Your task to perform on an android device: Add usb-a to the cart on newegg, then select checkout. Image 0: 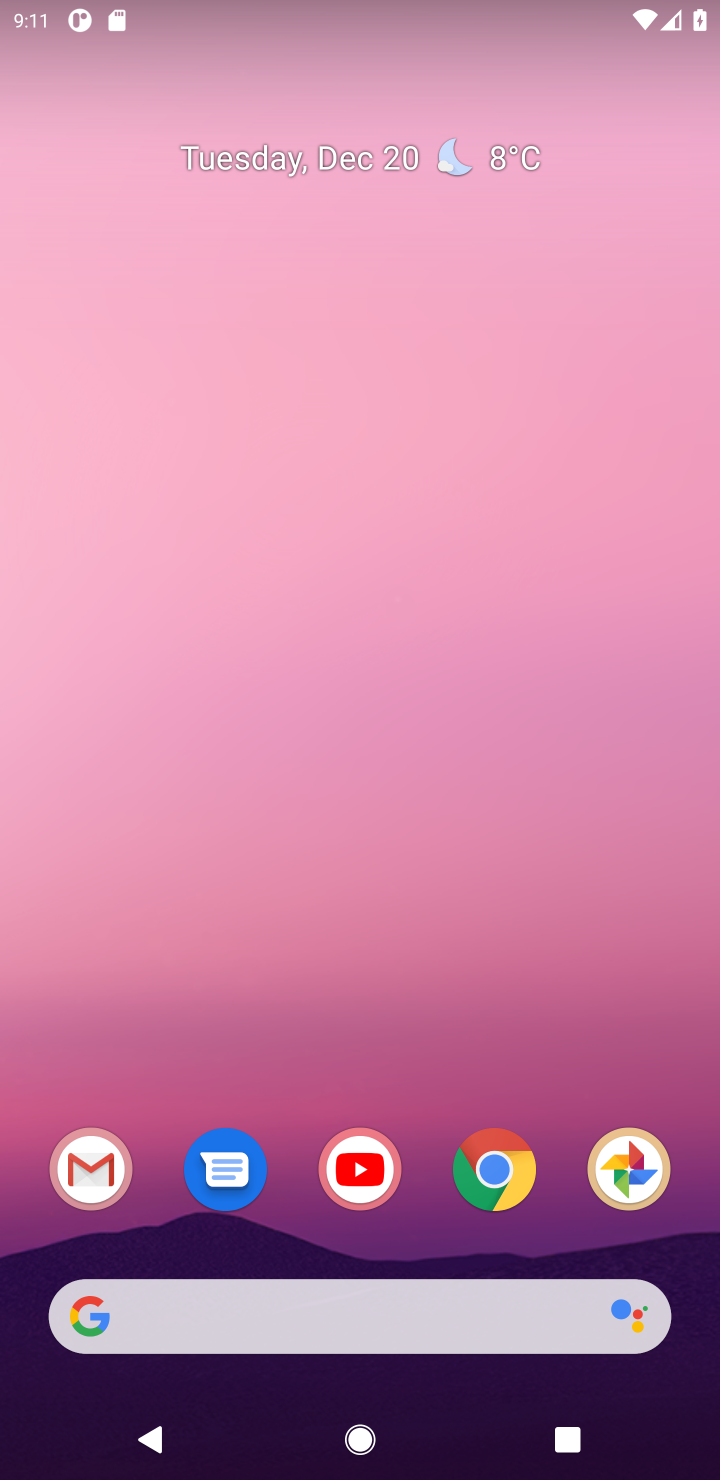
Step 0: click (456, 1153)
Your task to perform on an android device: Add usb-a to the cart on newegg, then select checkout. Image 1: 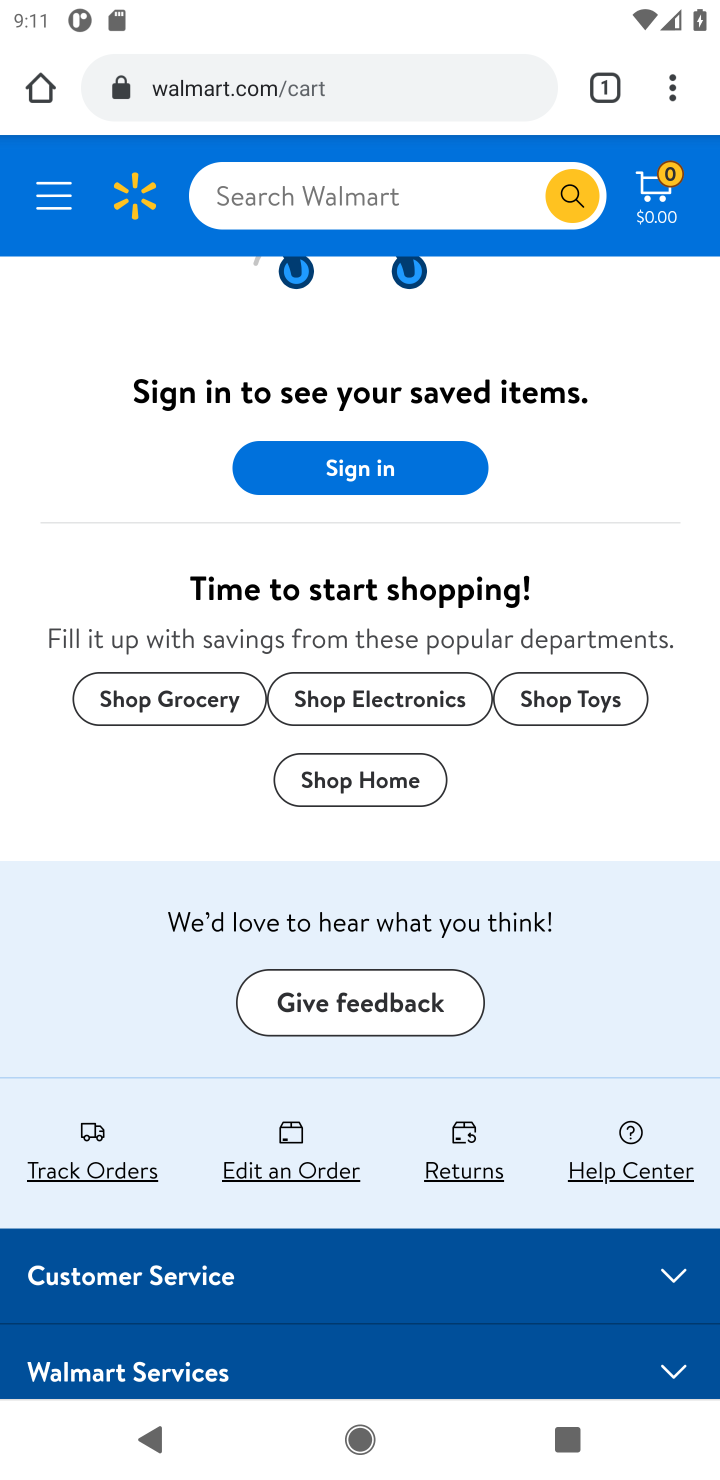
Step 1: click (304, 94)
Your task to perform on an android device: Add usb-a to the cart on newegg, then select checkout. Image 2: 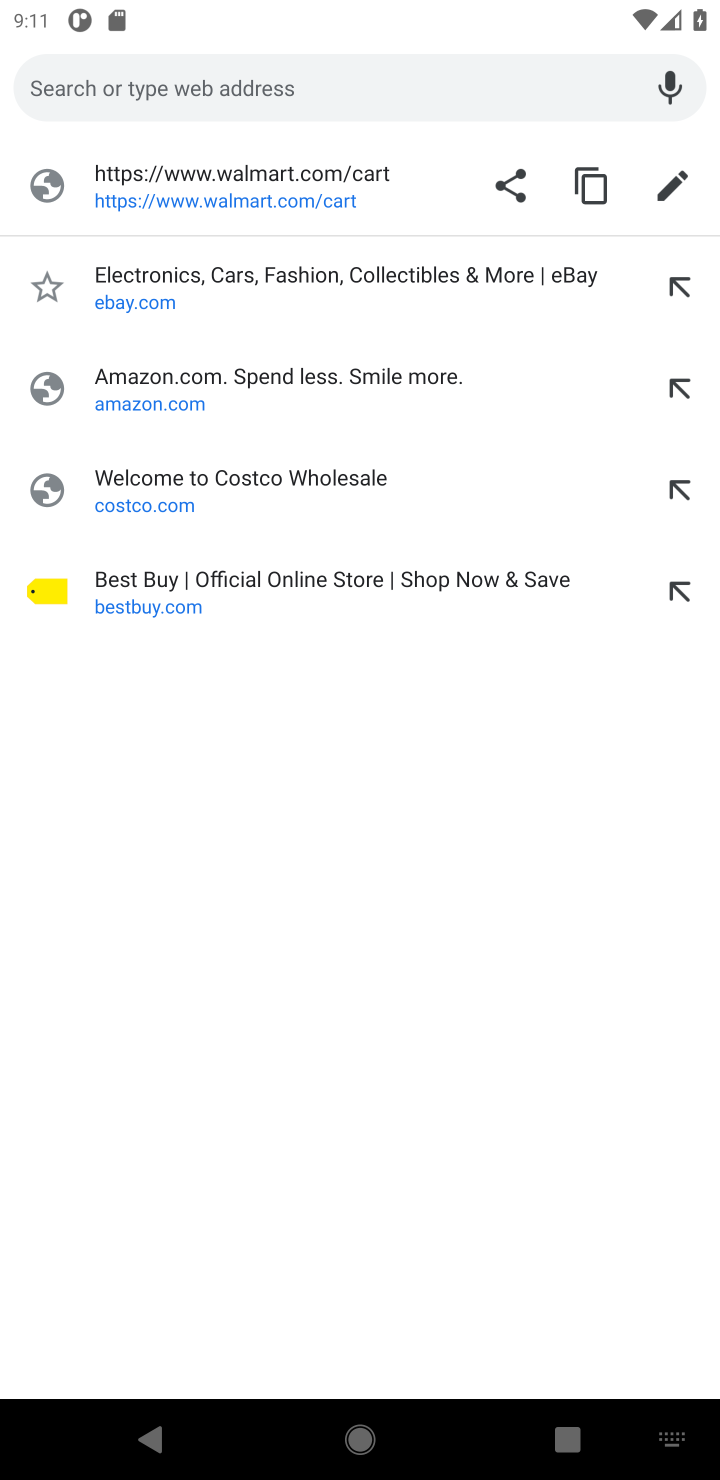
Step 2: type "newegg"
Your task to perform on an android device: Add usb-a to the cart on newegg, then select checkout. Image 3: 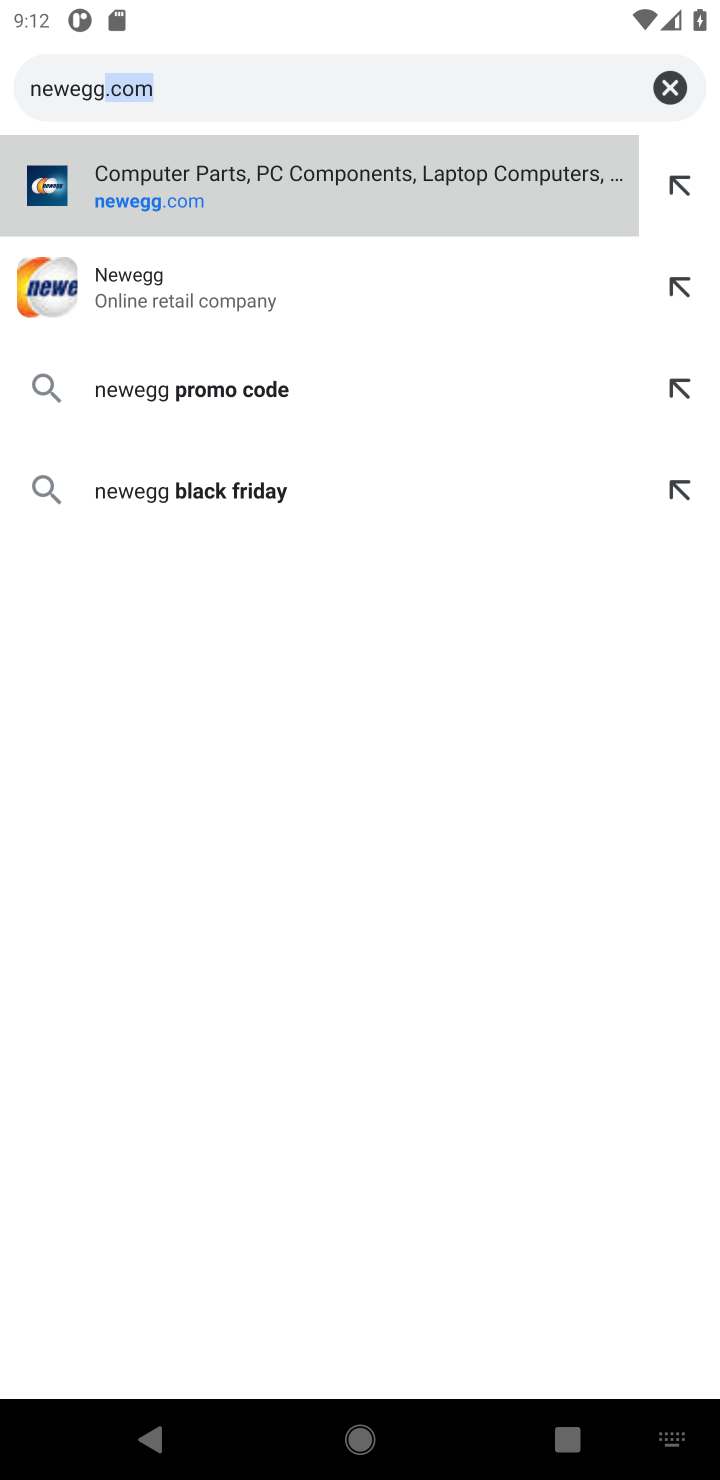
Step 3: click (254, 185)
Your task to perform on an android device: Add usb-a to the cart on newegg, then select checkout. Image 4: 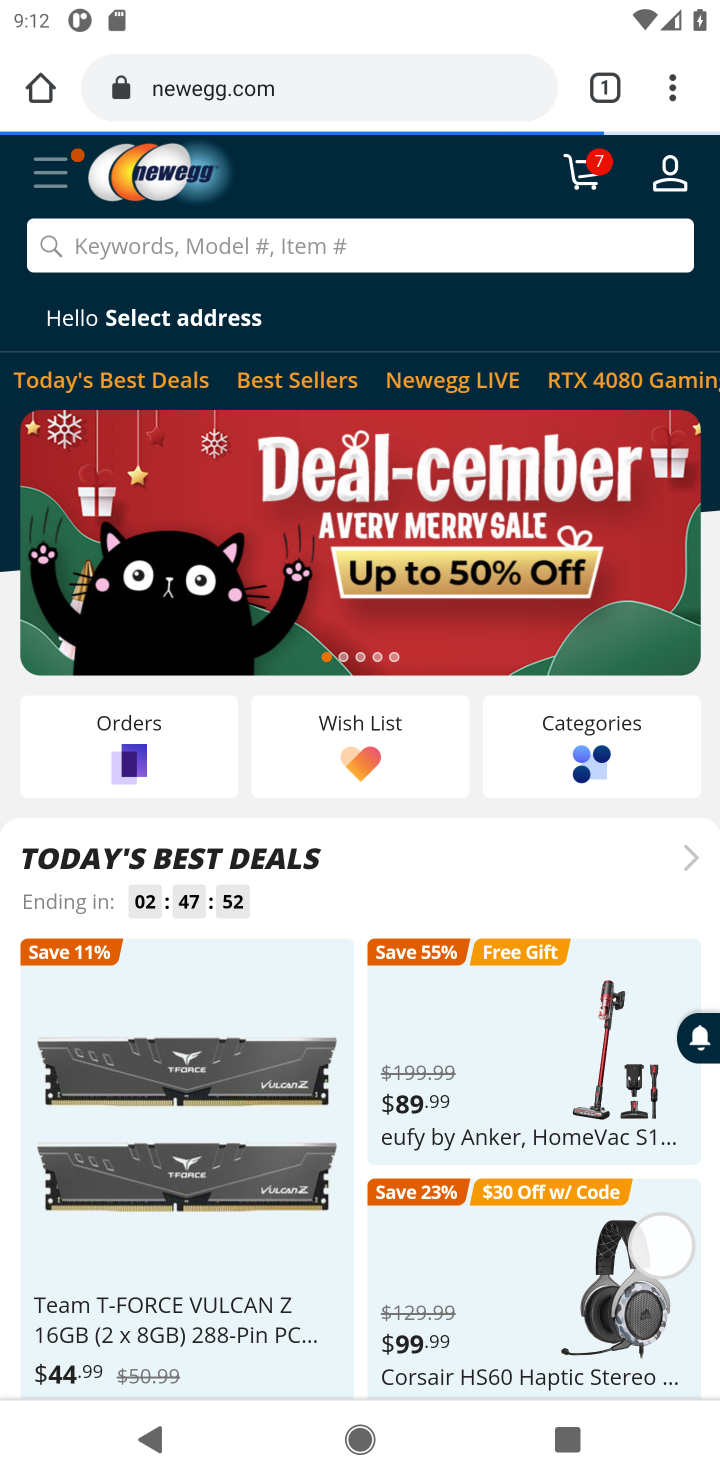
Step 4: click (331, 250)
Your task to perform on an android device: Add usb-a to the cart on newegg, then select checkout. Image 5: 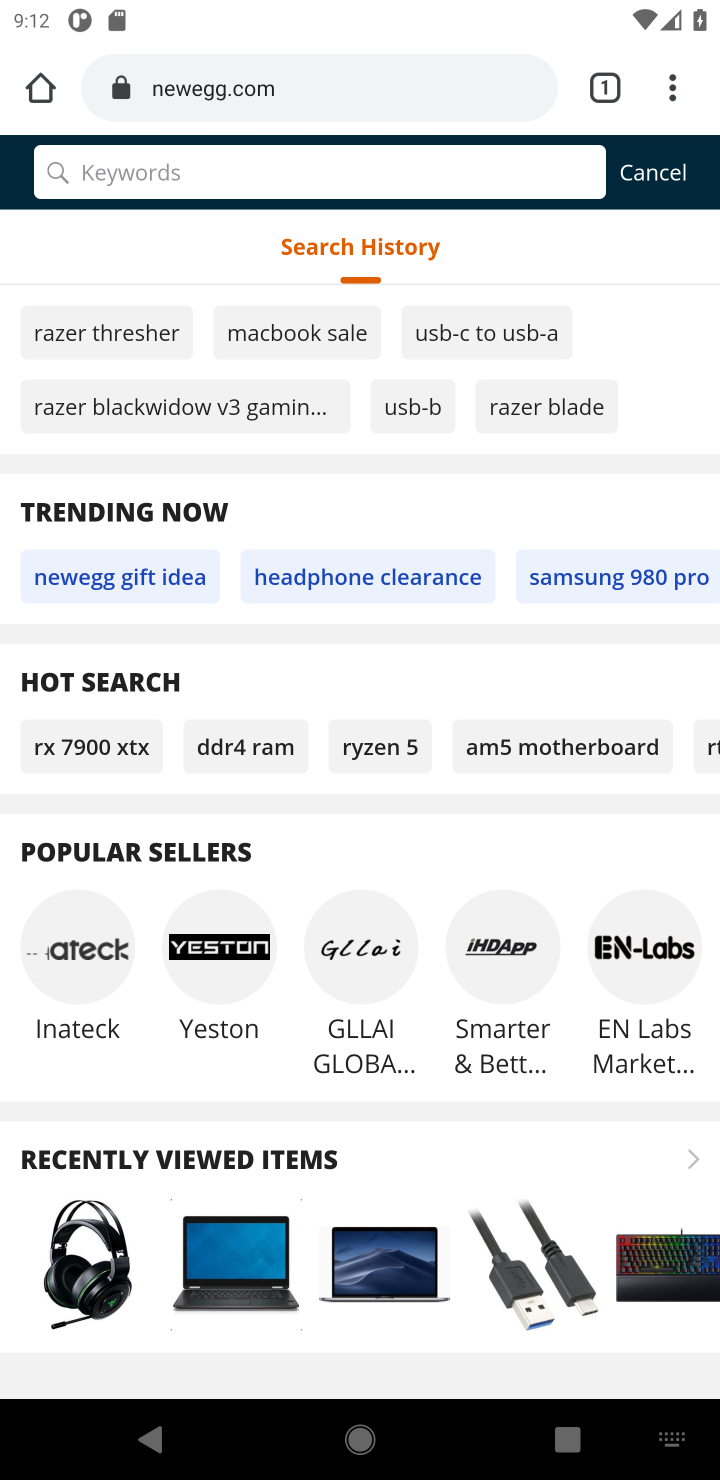
Step 5: type "usb-a"
Your task to perform on an android device: Add usb-a to the cart on newegg, then select checkout. Image 6: 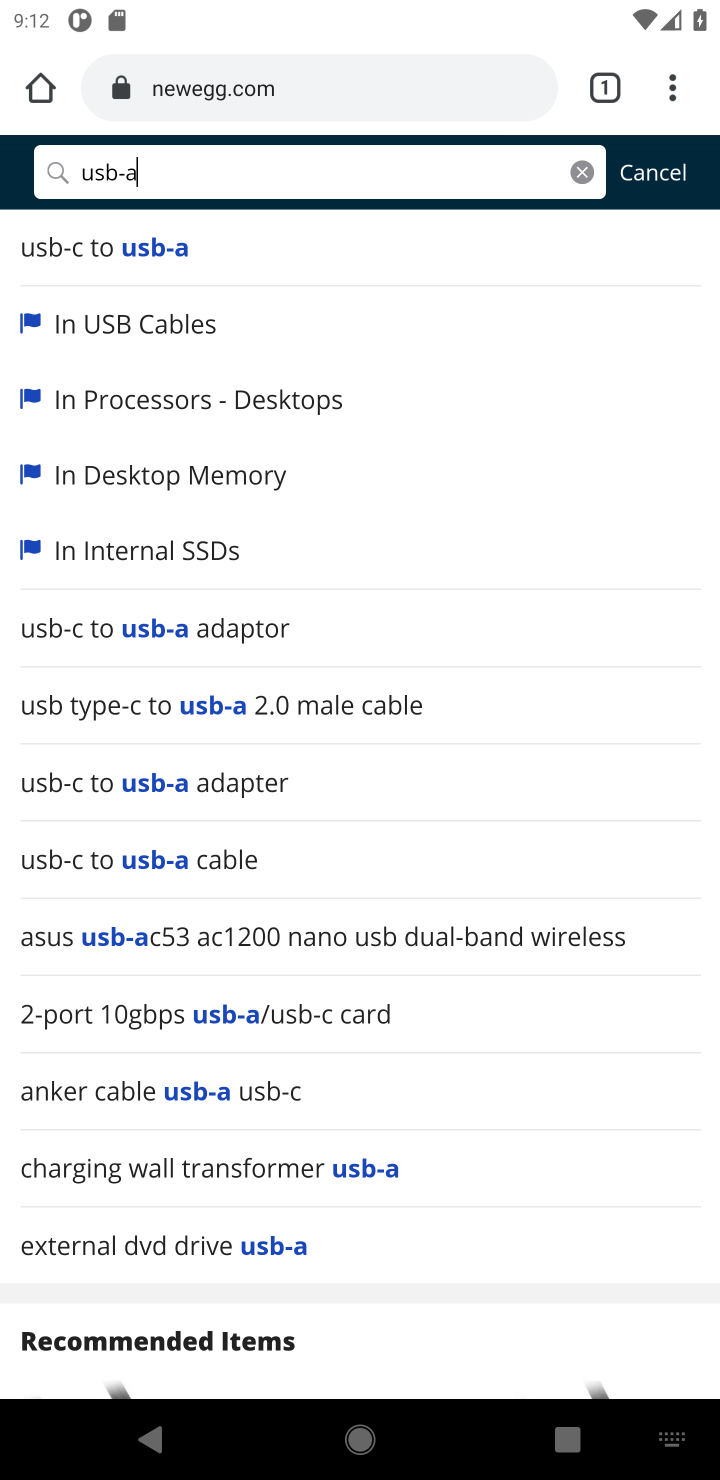
Step 6: click (152, 323)
Your task to perform on an android device: Add usb-a to the cart on newegg, then select checkout. Image 7: 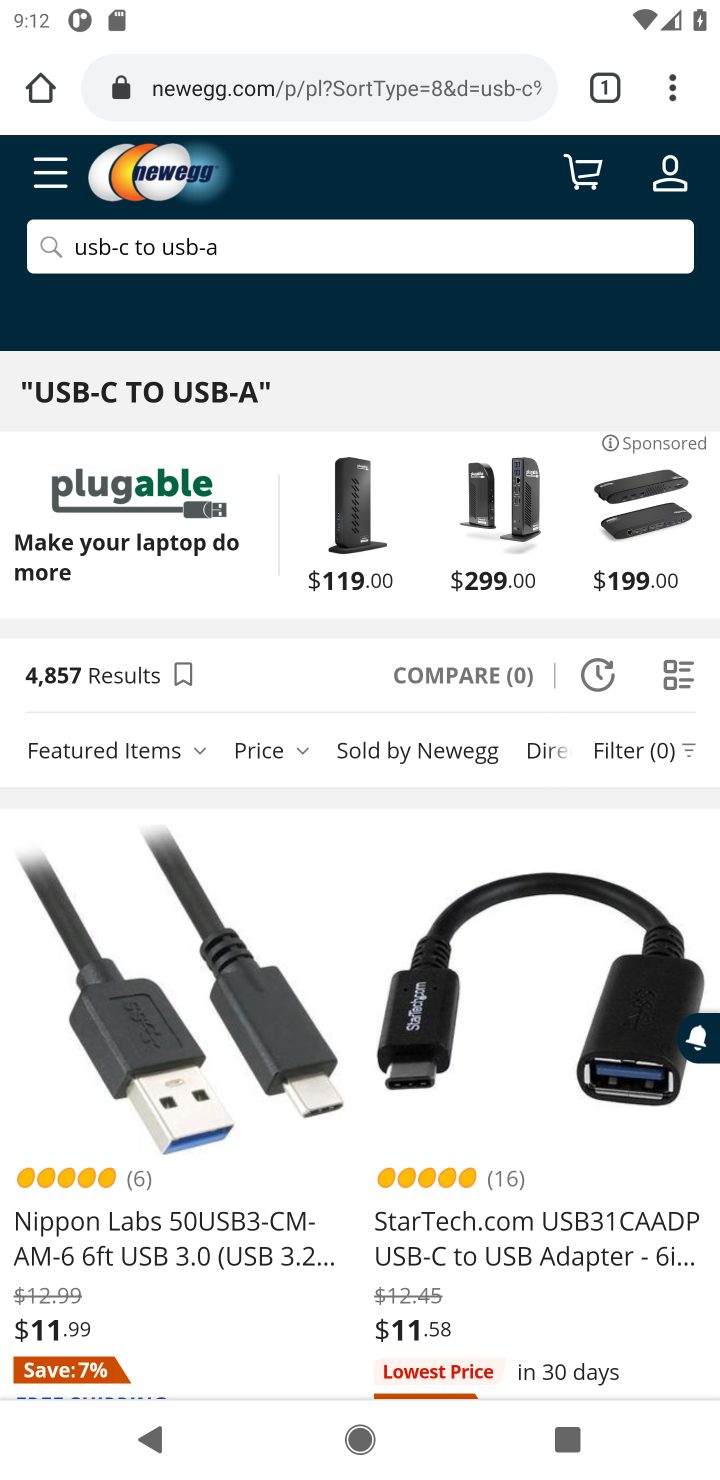
Step 7: click (148, 1107)
Your task to perform on an android device: Add usb-a to the cart on newegg, then select checkout. Image 8: 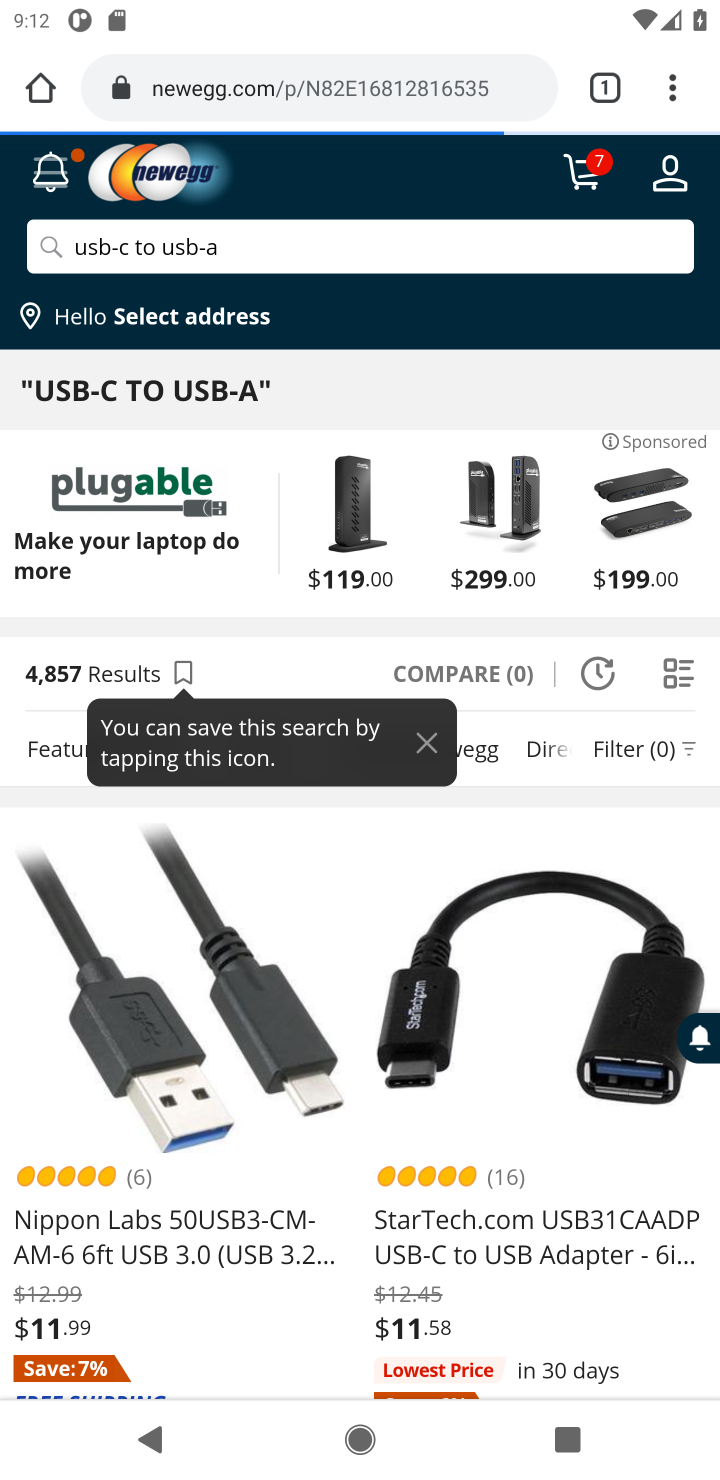
Step 8: click (249, 1296)
Your task to perform on an android device: Add usb-a to the cart on newegg, then select checkout. Image 9: 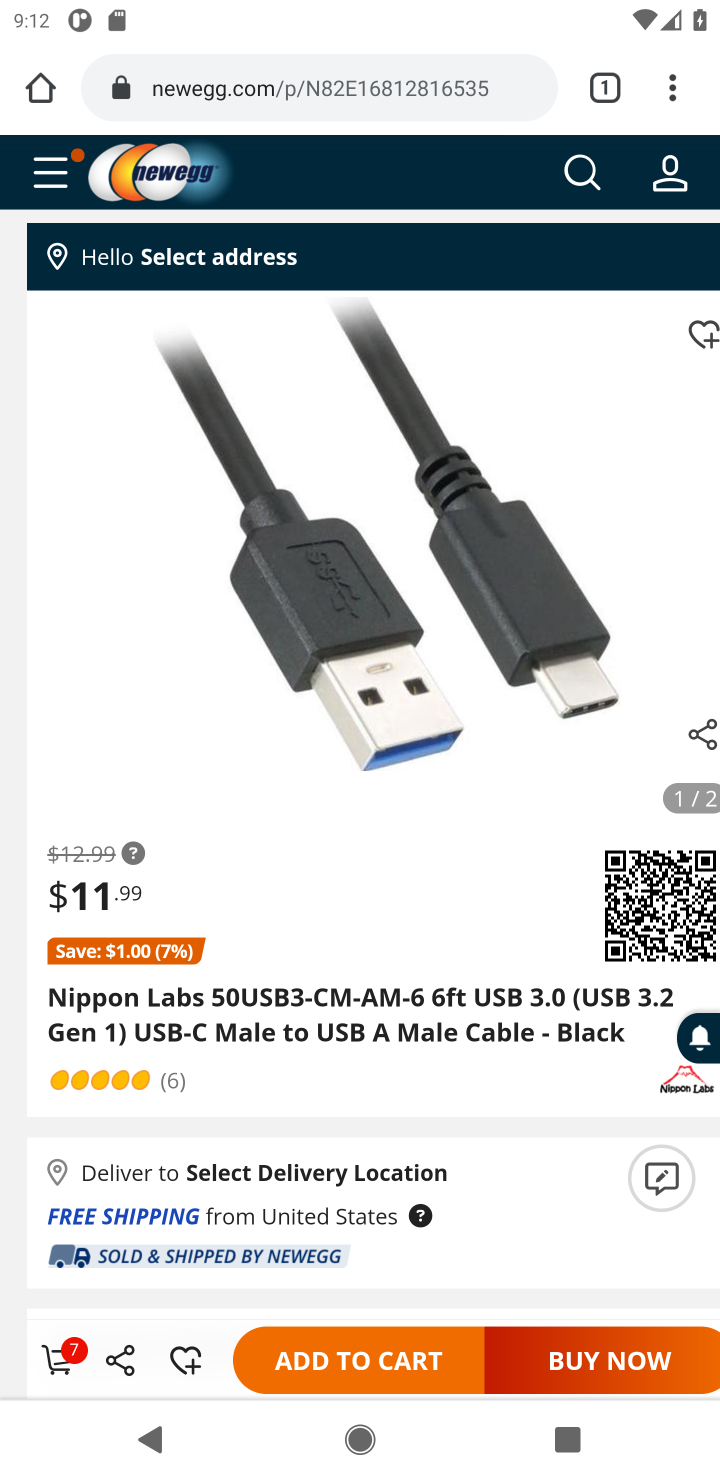
Step 9: click (305, 1355)
Your task to perform on an android device: Add usb-a to the cart on newegg, then select checkout. Image 10: 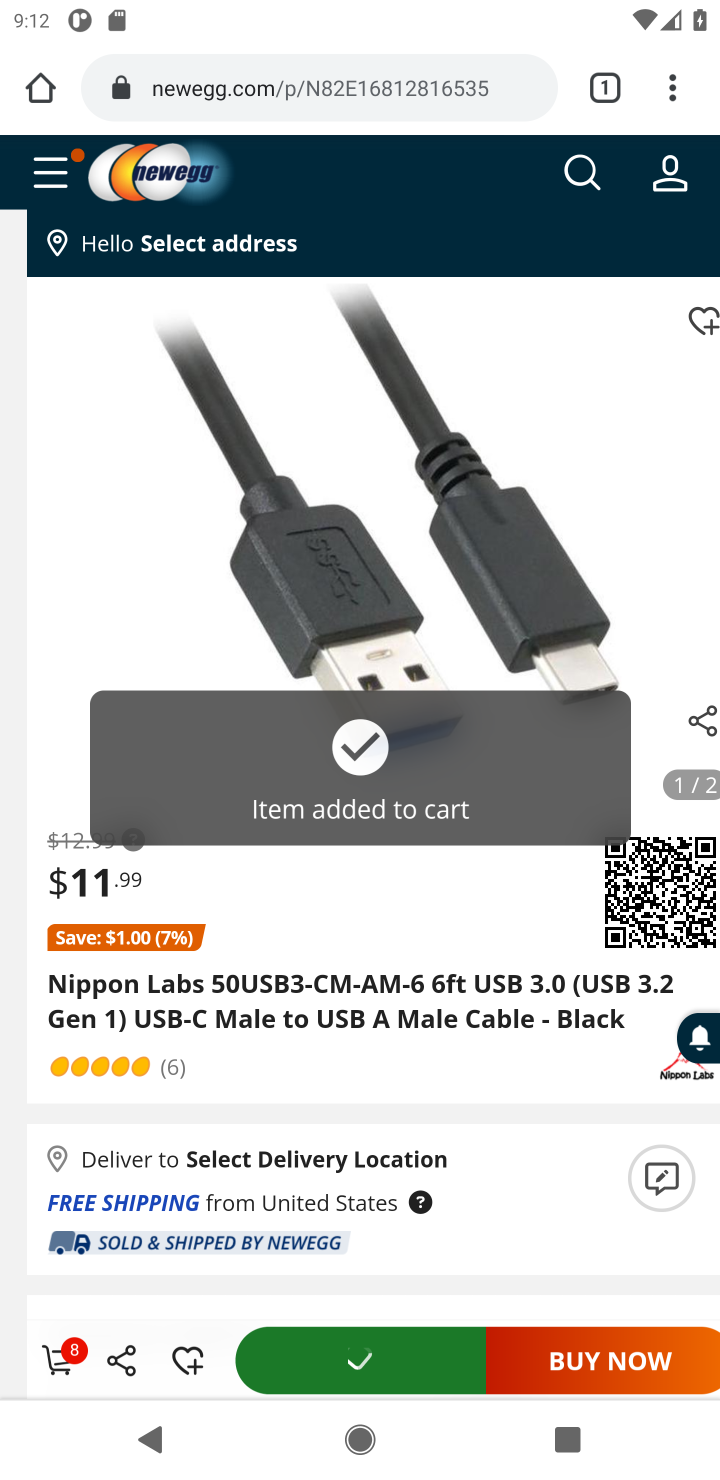
Step 10: task complete